Your task to perform on an android device: turn off smart reply in the gmail app Image 0: 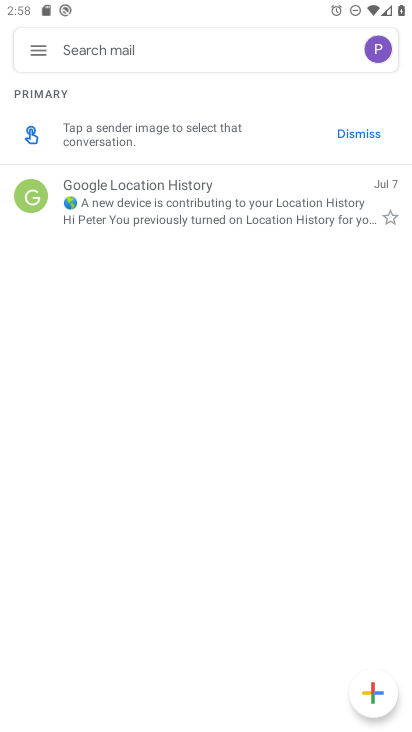
Step 0: press home button
Your task to perform on an android device: turn off smart reply in the gmail app Image 1: 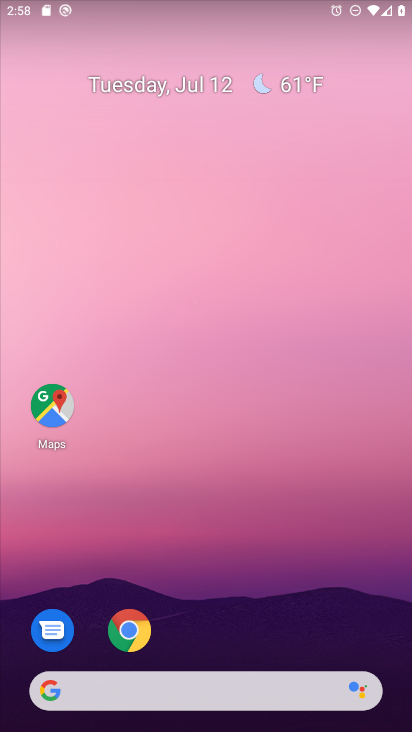
Step 1: drag from (171, 632) to (193, 131)
Your task to perform on an android device: turn off smart reply in the gmail app Image 2: 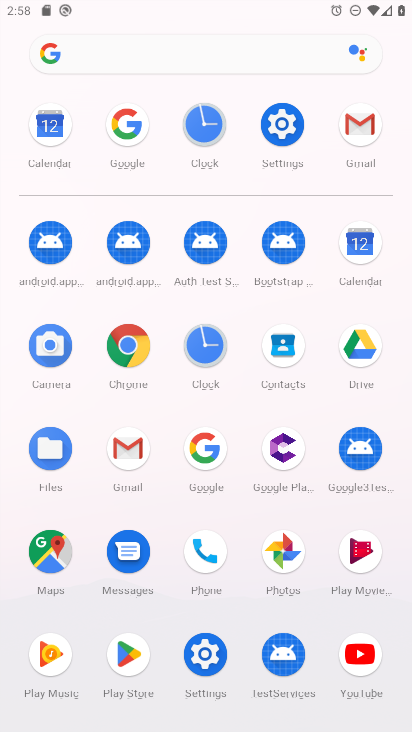
Step 2: click (371, 132)
Your task to perform on an android device: turn off smart reply in the gmail app Image 3: 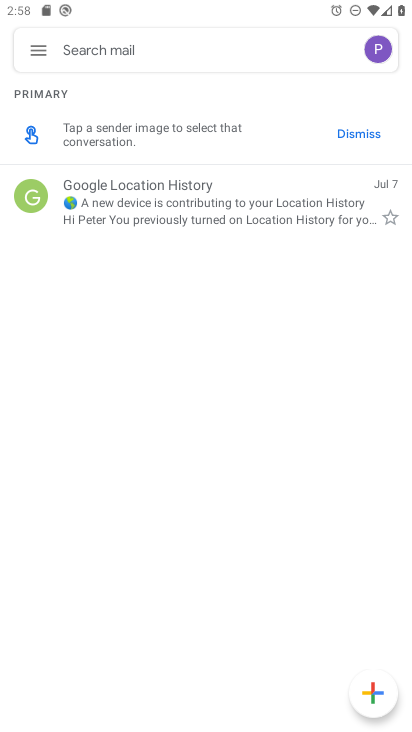
Step 3: click (54, 48)
Your task to perform on an android device: turn off smart reply in the gmail app Image 4: 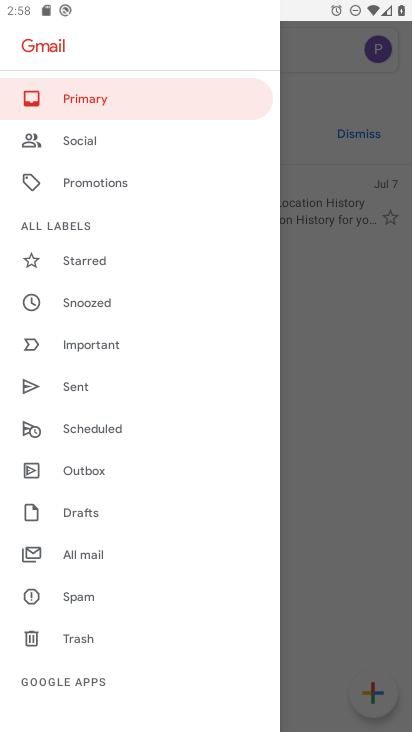
Step 4: drag from (120, 623) to (127, 232)
Your task to perform on an android device: turn off smart reply in the gmail app Image 5: 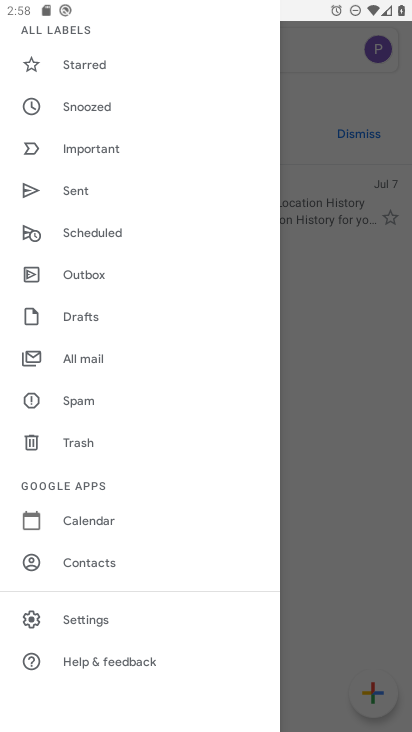
Step 5: drag from (123, 615) to (177, 234)
Your task to perform on an android device: turn off smart reply in the gmail app Image 6: 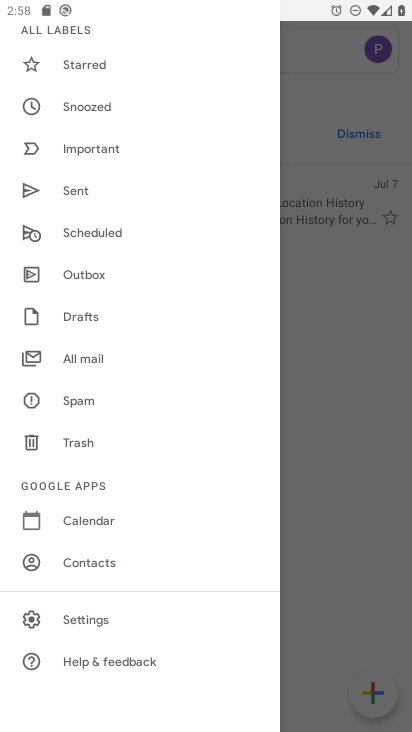
Step 6: click (113, 625)
Your task to perform on an android device: turn off smart reply in the gmail app Image 7: 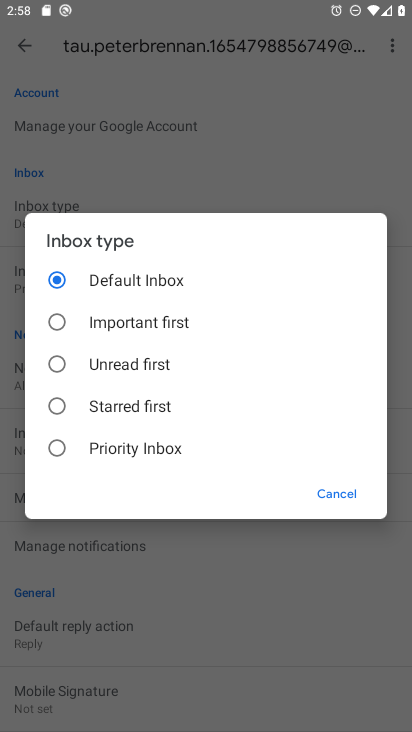
Step 7: click (340, 487)
Your task to perform on an android device: turn off smart reply in the gmail app Image 8: 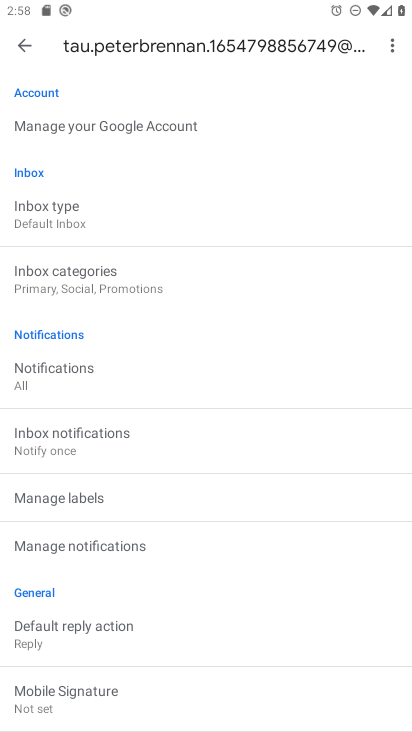
Step 8: drag from (170, 627) to (232, 277)
Your task to perform on an android device: turn off smart reply in the gmail app Image 9: 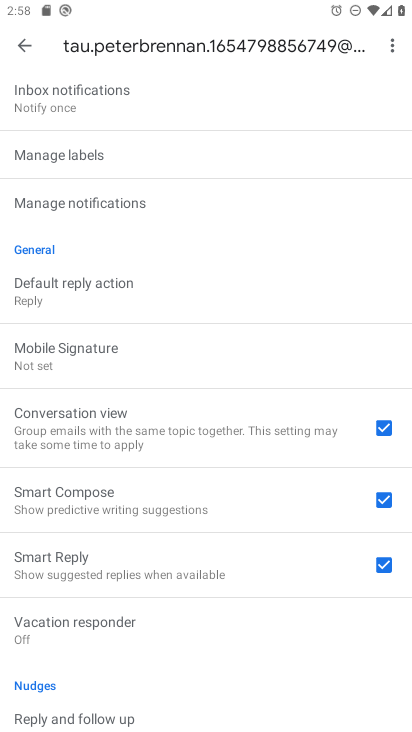
Step 9: drag from (179, 553) to (235, 147)
Your task to perform on an android device: turn off smart reply in the gmail app Image 10: 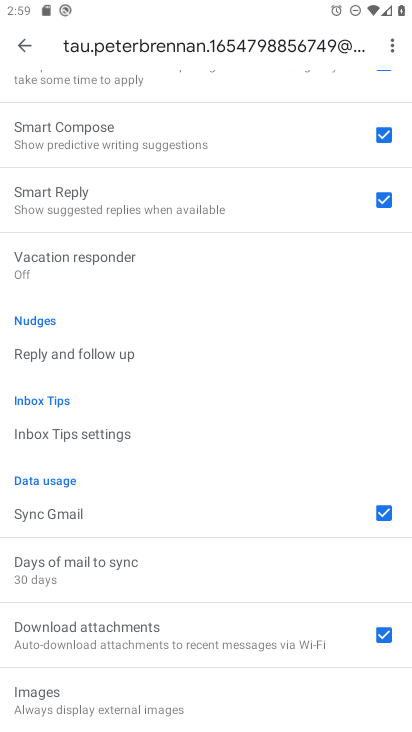
Step 10: click (377, 199)
Your task to perform on an android device: turn off smart reply in the gmail app Image 11: 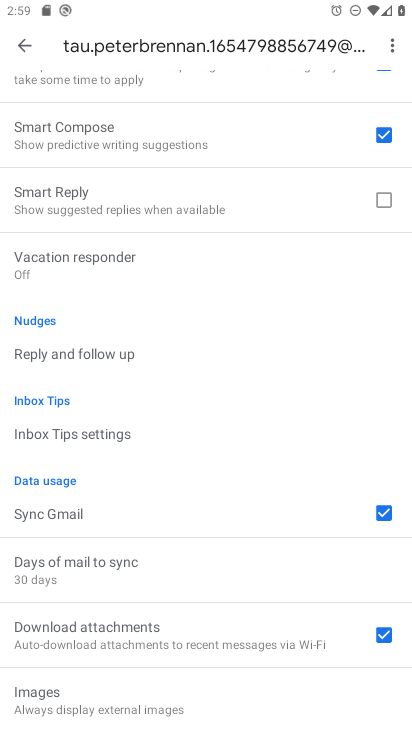
Step 11: task complete